Your task to perform on an android device: Find coffee shops on Maps Image 0: 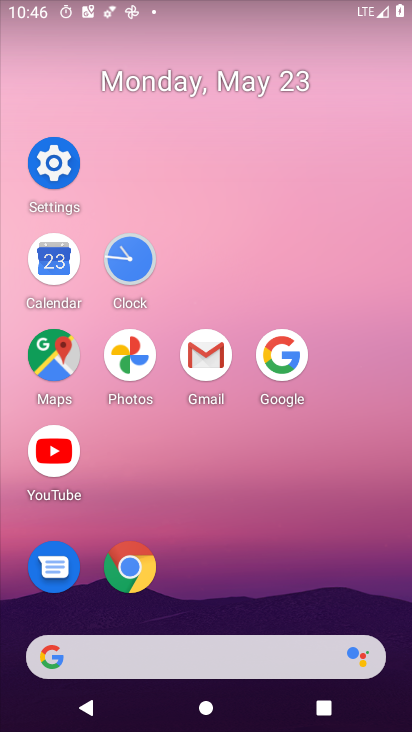
Step 0: click (57, 352)
Your task to perform on an android device: Find coffee shops on Maps Image 1: 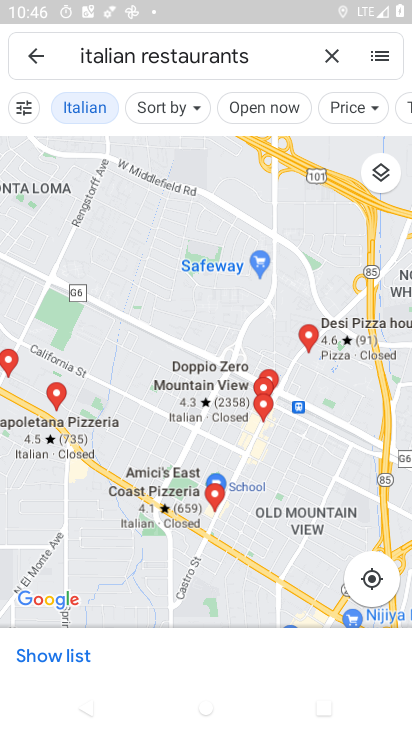
Step 1: click (334, 43)
Your task to perform on an android device: Find coffee shops on Maps Image 2: 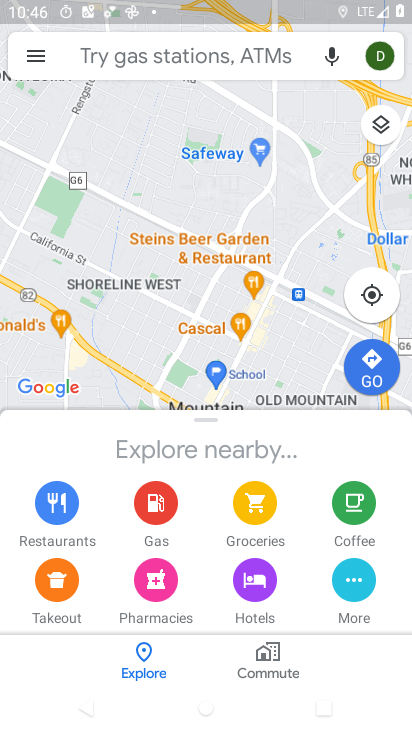
Step 2: click (192, 68)
Your task to perform on an android device: Find coffee shops on Maps Image 3: 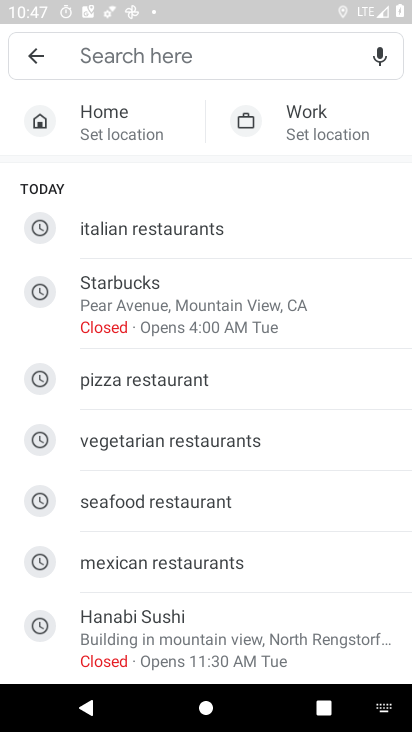
Step 3: type "coffee shops"
Your task to perform on an android device: Find coffee shops on Maps Image 4: 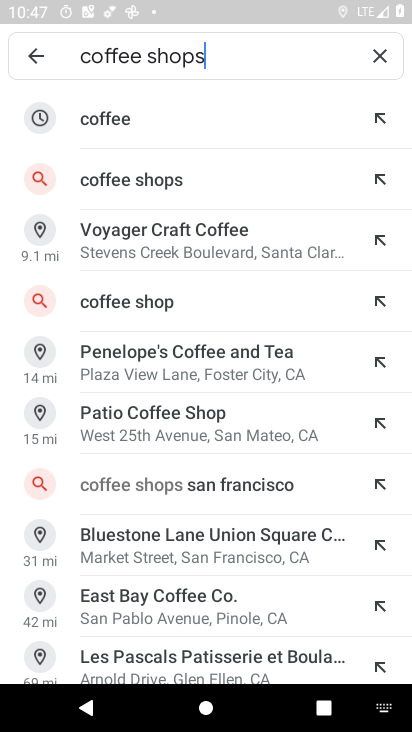
Step 4: task complete